Your task to perform on an android device: toggle pop-ups in chrome Image 0: 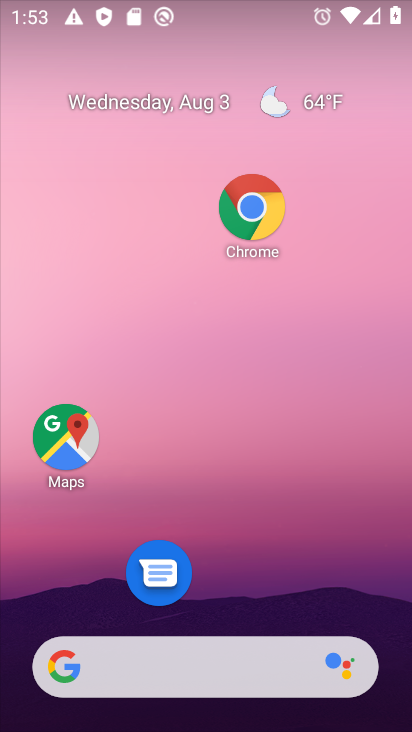
Step 0: drag from (220, 610) to (404, 50)
Your task to perform on an android device: toggle pop-ups in chrome Image 1: 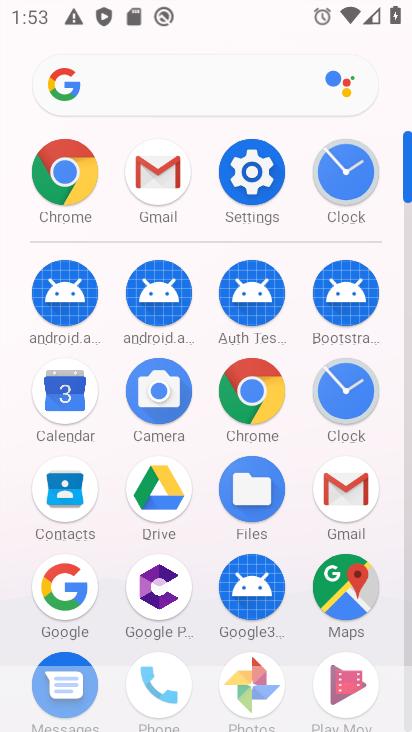
Step 1: click (81, 205)
Your task to perform on an android device: toggle pop-ups in chrome Image 2: 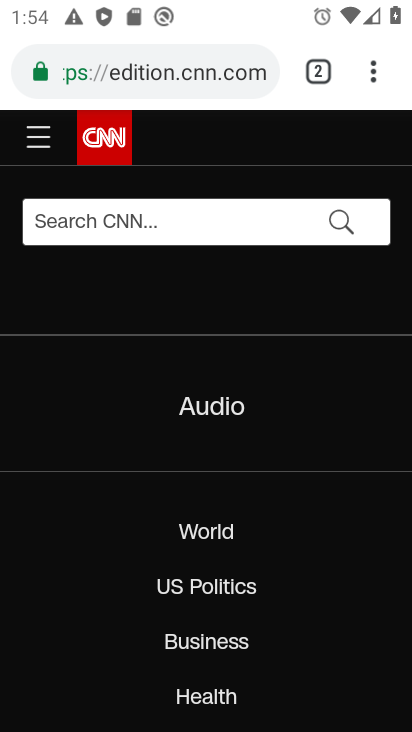
Step 2: click (370, 72)
Your task to perform on an android device: toggle pop-ups in chrome Image 3: 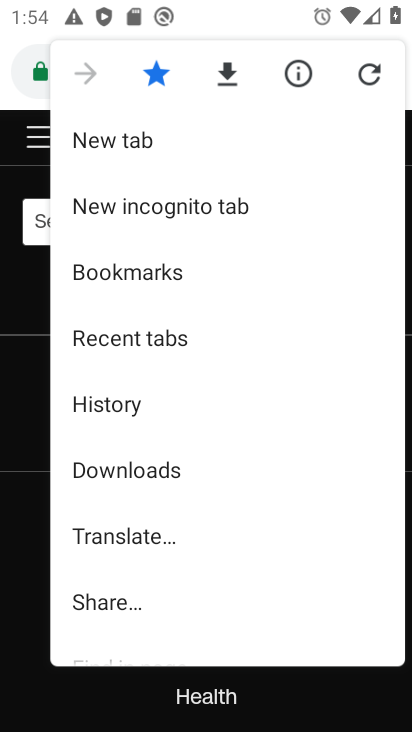
Step 3: drag from (192, 545) to (149, 0)
Your task to perform on an android device: toggle pop-ups in chrome Image 4: 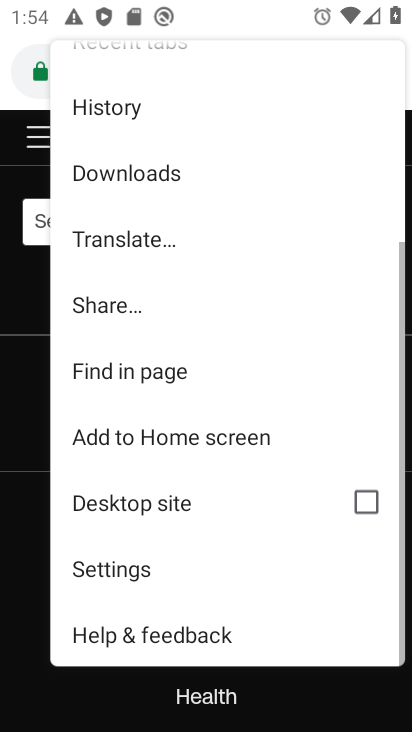
Step 4: click (136, 572)
Your task to perform on an android device: toggle pop-ups in chrome Image 5: 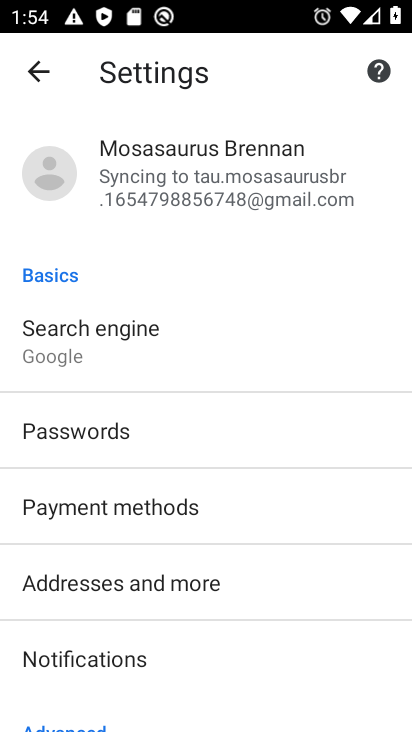
Step 5: drag from (160, 598) to (210, 129)
Your task to perform on an android device: toggle pop-ups in chrome Image 6: 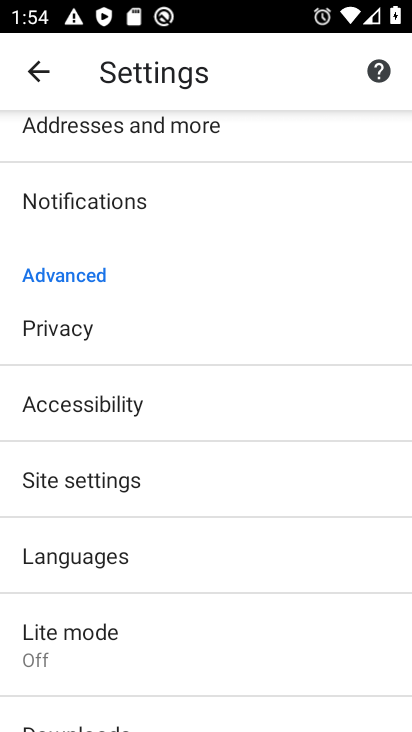
Step 6: click (106, 463)
Your task to perform on an android device: toggle pop-ups in chrome Image 7: 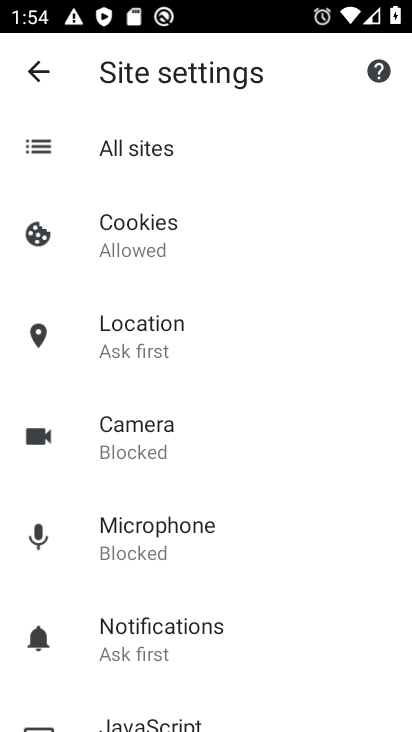
Step 7: drag from (189, 584) to (224, 233)
Your task to perform on an android device: toggle pop-ups in chrome Image 8: 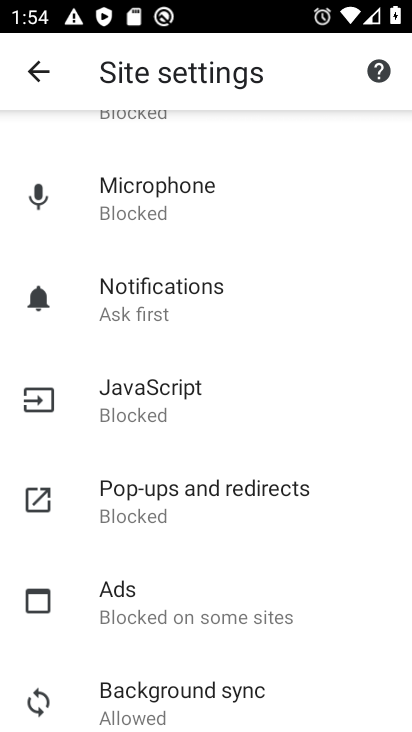
Step 8: click (180, 501)
Your task to perform on an android device: toggle pop-ups in chrome Image 9: 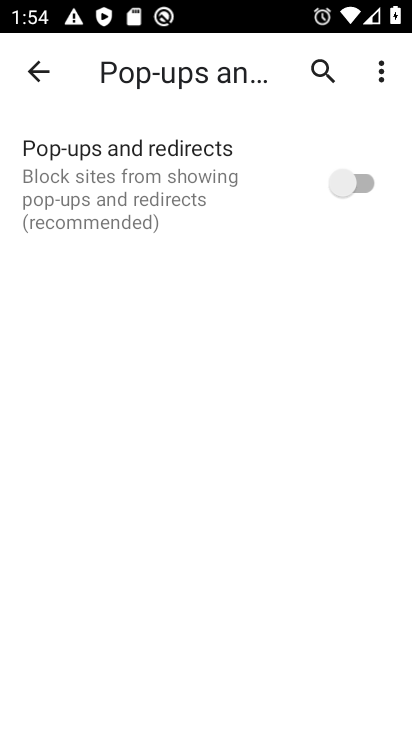
Step 9: click (373, 191)
Your task to perform on an android device: toggle pop-ups in chrome Image 10: 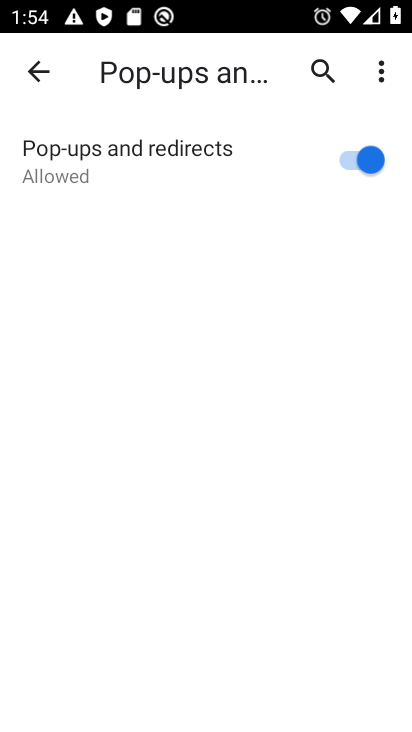
Step 10: task complete